Your task to perform on an android device: Open the calendar app, open the side menu, and click the "Day" option Image 0: 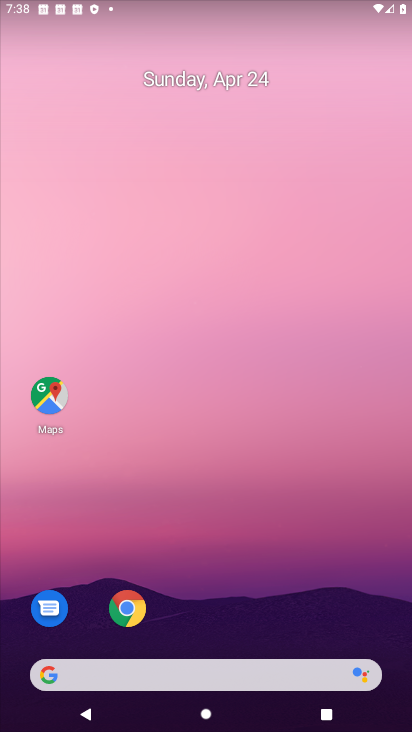
Step 0: drag from (254, 619) to (230, 162)
Your task to perform on an android device: Open the calendar app, open the side menu, and click the "Day" option Image 1: 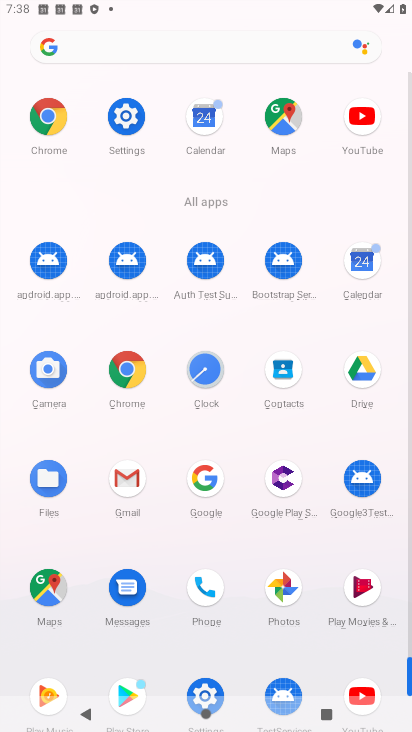
Step 1: click (370, 263)
Your task to perform on an android device: Open the calendar app, open the side menu, and click the "Day" option Image 2: 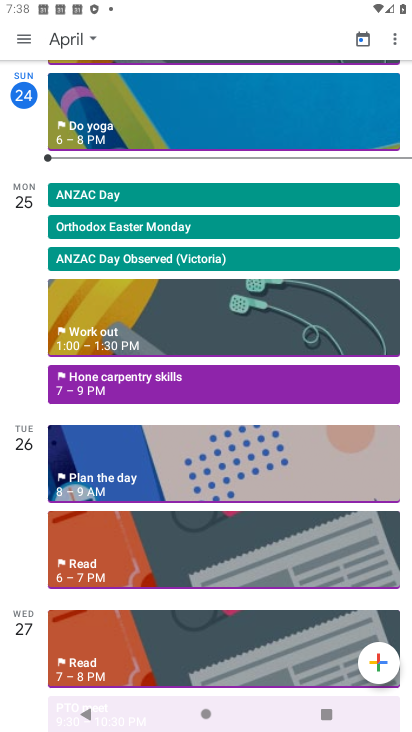
Step 2: click (15, 39)
Your task to perform on an android device: Open the calendar app, open the side menu, and click the "Day" option Image 3: 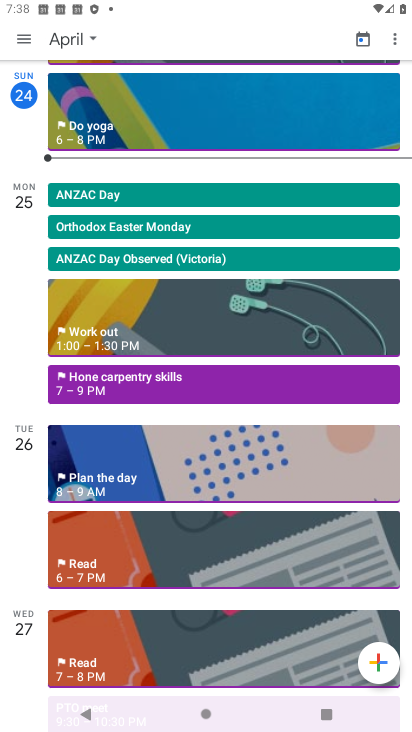
Step 3: click (21, 42)
Your task to perform on an android device: Open the calendar app, open the side menu, and click the "Day" option Image 4: 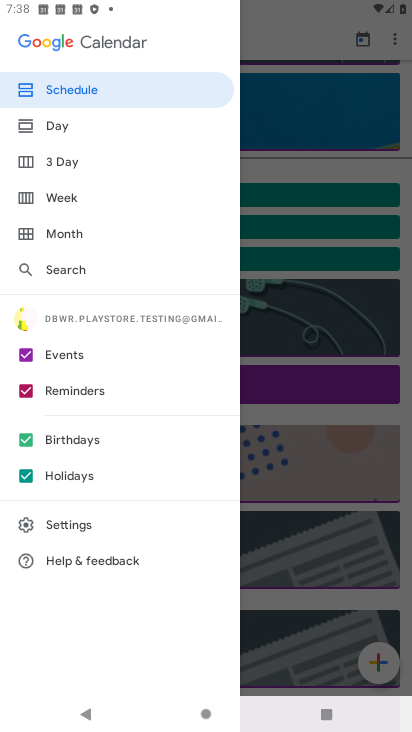
Step 4: click (79, 126)
Your task to perform on an android device: Open the calendar app, open the side menu, and click the "Day" option Image 5: 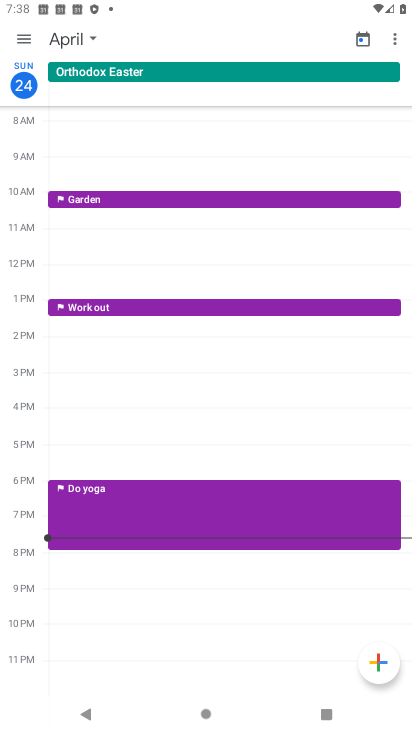
Step 5: task complete